Your task to perform on an android device: turn off improve location accuracy Image 0: 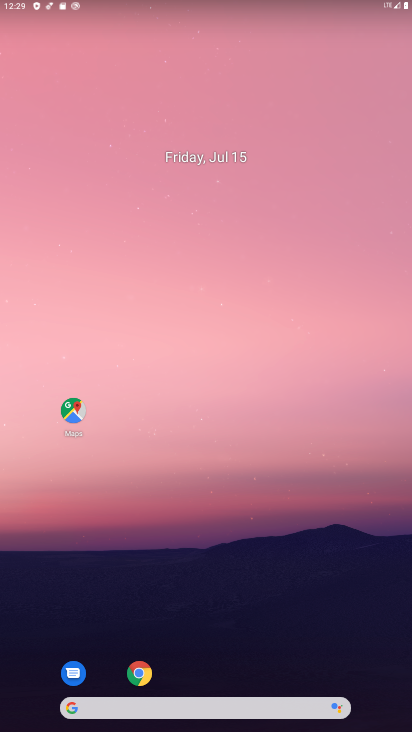
Step 0: drag from (392, 712) to (400, 135)
Your task to perform on an android device: turn off improve location accuracy Image 1: 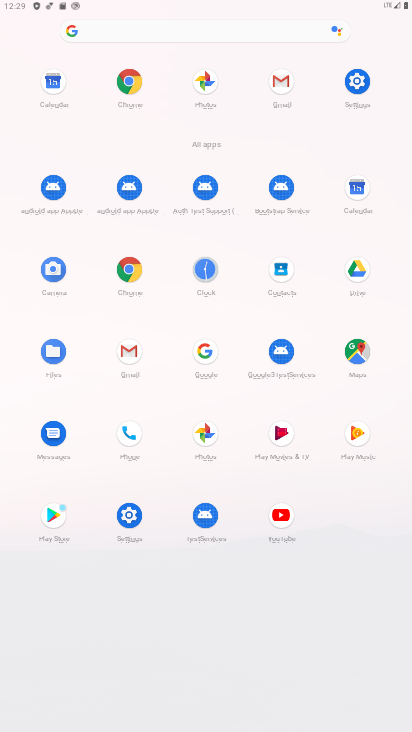
Step 1: click (352, 87)
Your task to perform on an android device: turn off improve location accuracy Image 2: 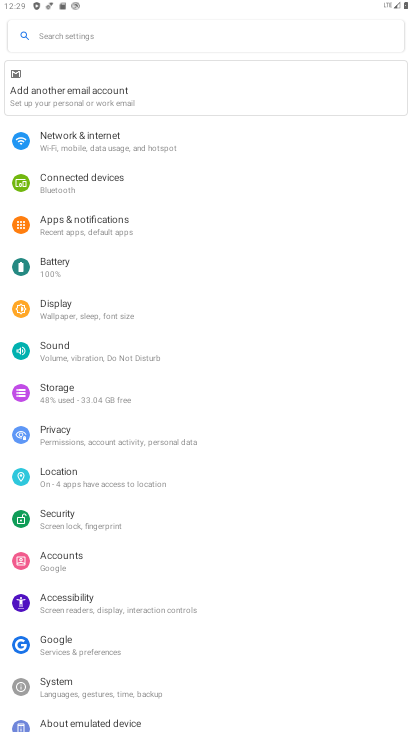
Step 2: click (64, 477)
Your task to perform on an android device: turn off improve location accuracy Image 3: 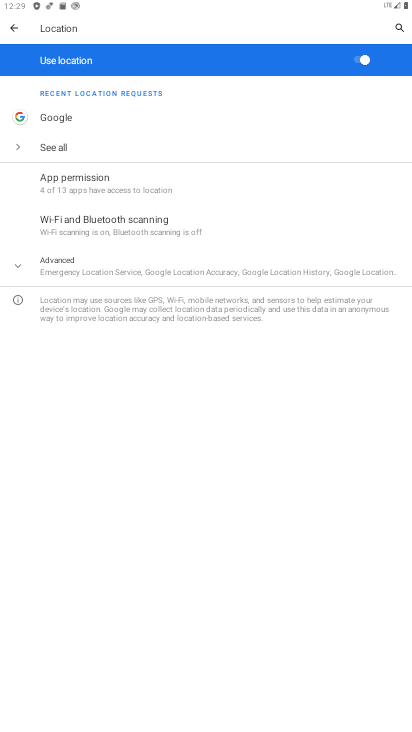
Step 3: click (47, 258)
Your task to perform on an android device: turn off improve location accuracy Image 4: 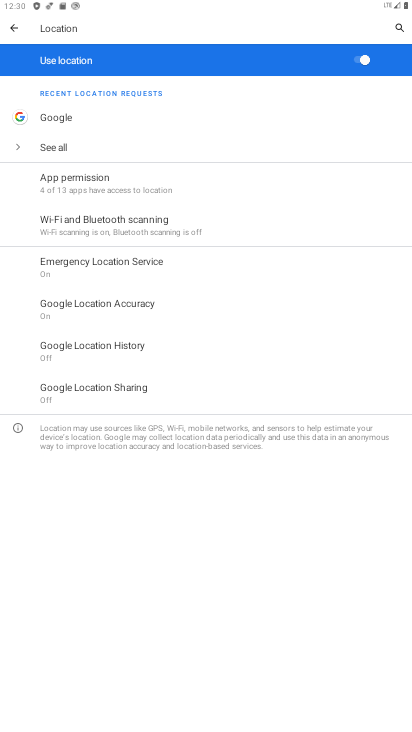
Step 4: click (100, 317)
Your task to perform on an android device: turn off improve location accuracy Image 5: 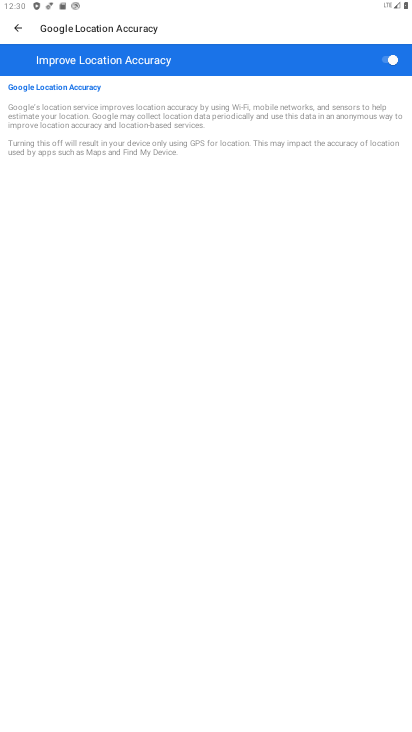
Step 5: click (388, 60)
Your task to perform on an android device: turn off improve location accuracy Image 6: 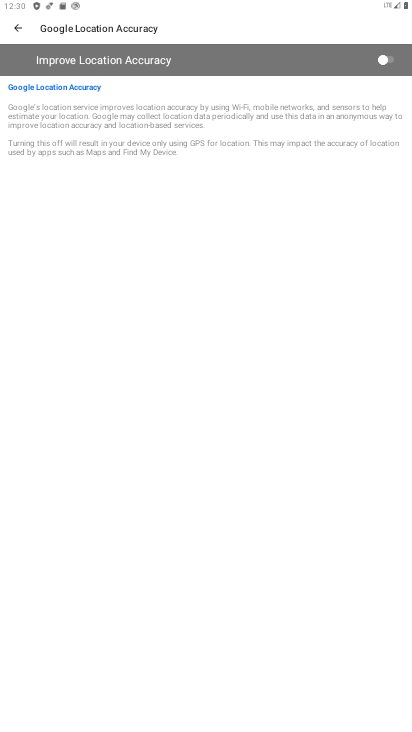
Step 6: task complete